Your task to perform on an android device: check google app version Image 0: 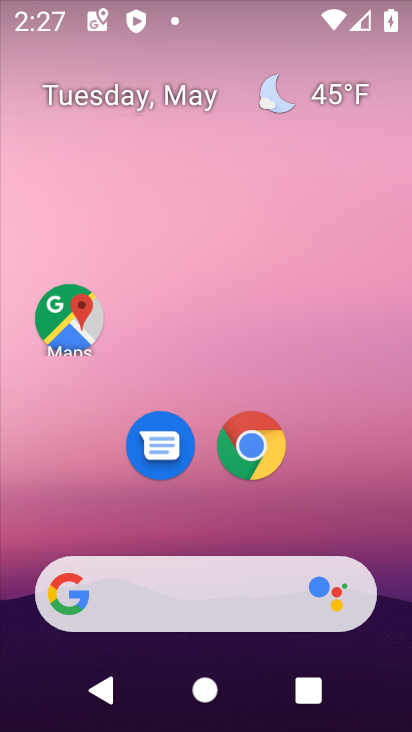
Step 0: drag from (226, 511) to (271, 68)
Your task to perform on an android device: check google app version Image 1: 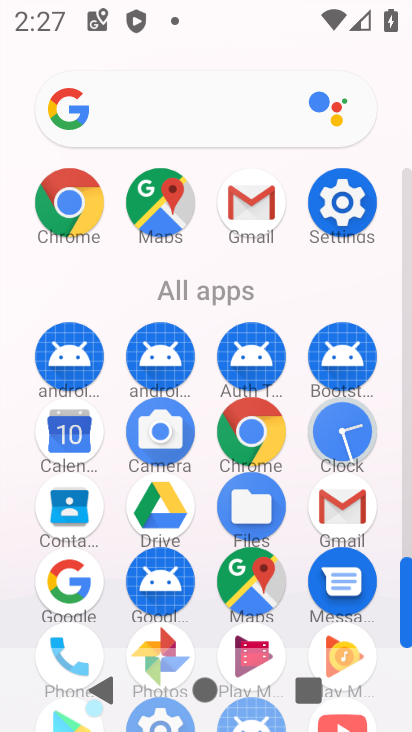
Step 1: click (340, 264)
Your task to perform on an android device: check google app version Image 2: 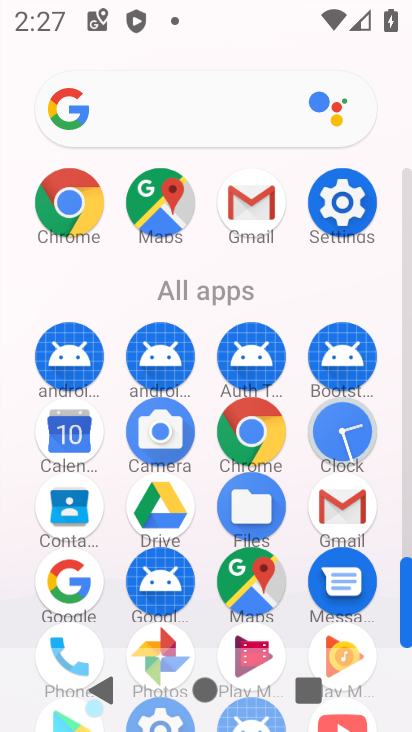
Step 2: click (352, 174)
Your task to perform on an android device: check google app version Image 3: 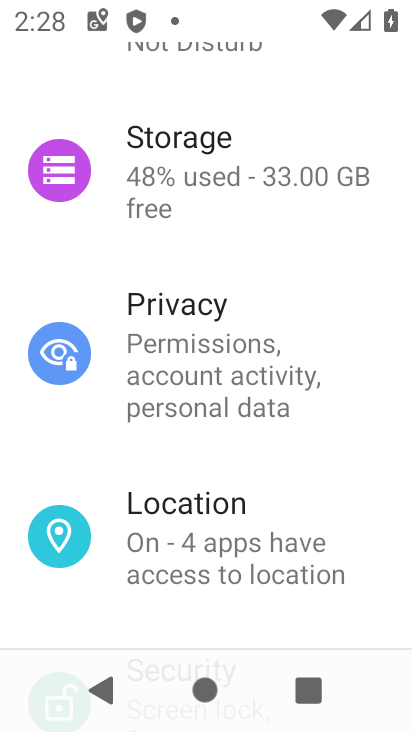
Step 3: drag from (146, 551) to (187, 73)
Your task to perform on an android device: check google app version Image 4: 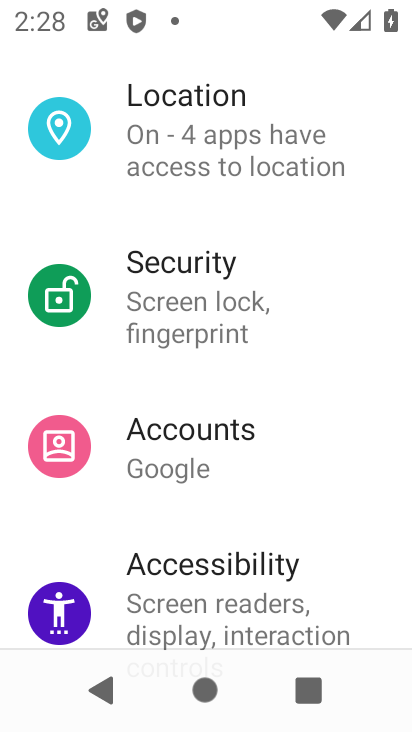
Step 4: drag from (175, 559) to (205, 165)
Your task to perform on an android device: check google app version Image 5: 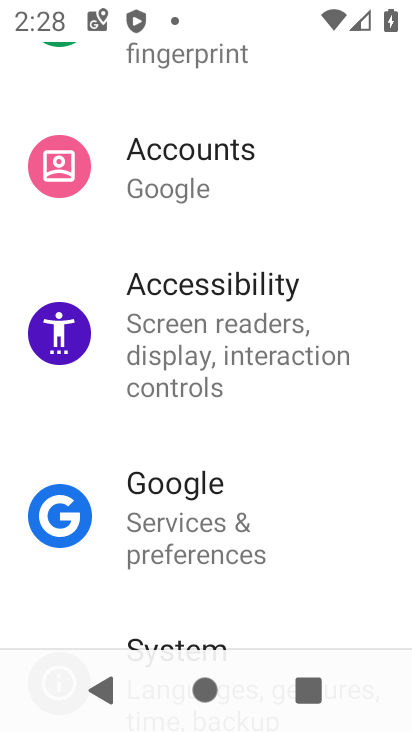
Step 5: drag from (208, 498) to (165, 154)
Your task to perform on an android device: check google app version Image 6: 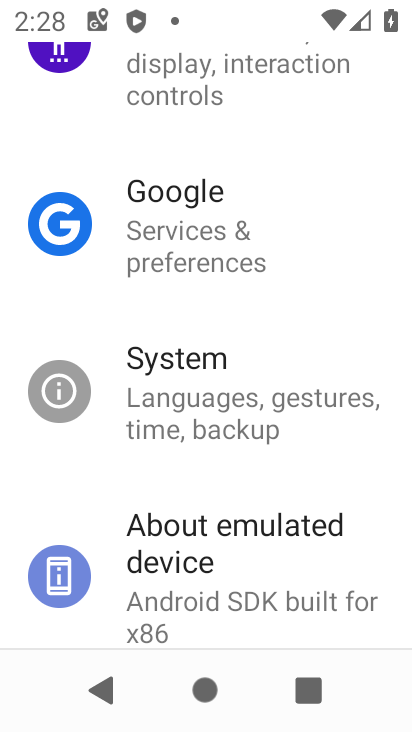
Step 6: click (113, 585)
Your task to perform on an android device: check google app version Image 7: 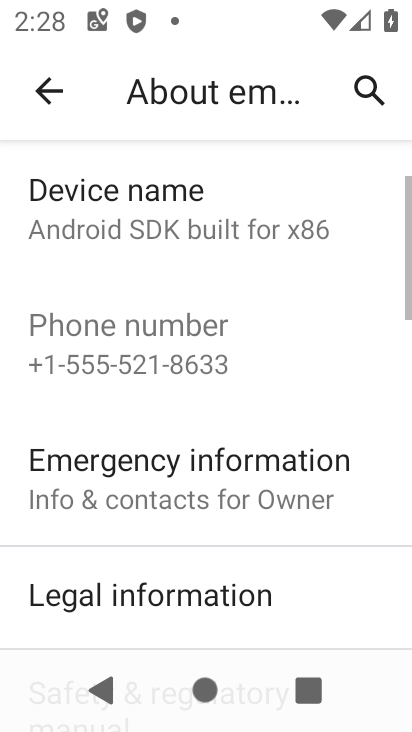
Step 7: drag from (205, 455) to (217, 160)
Your task to perform on an android device: check google app version Image 8: 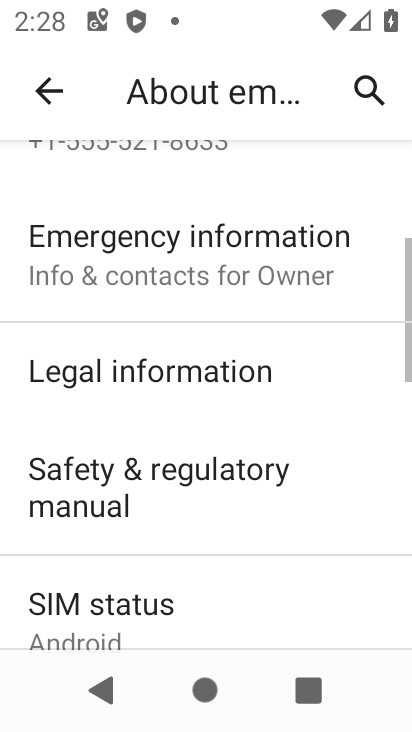
Step 8: drag from (216, 546) to (225, 207)
Your task to perform on an android device: check google app version Image 9: 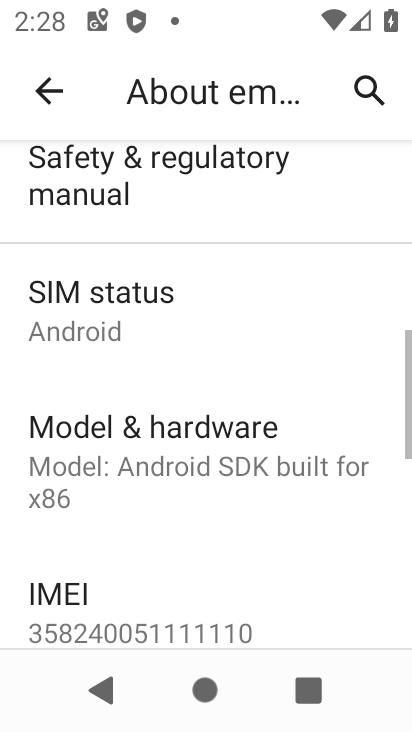
Step 9: drag from (58, 566) to (164, 5)
Your task to perform on an android device: check google app version Image 10: 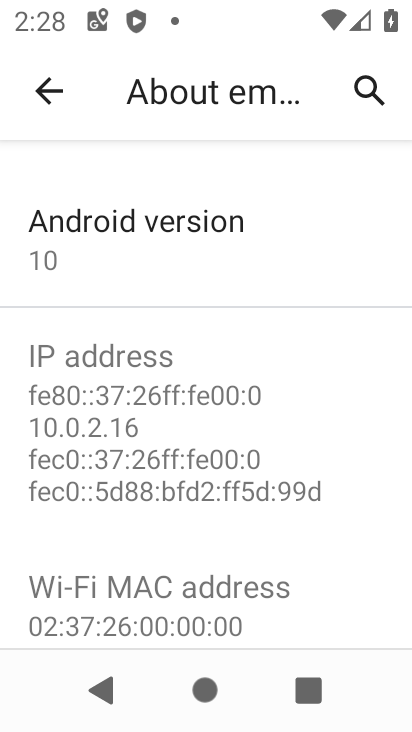
Step 10: drag from (113, 551) to (137, 57)
Your task to perform on an android device: check google app version Image 11: 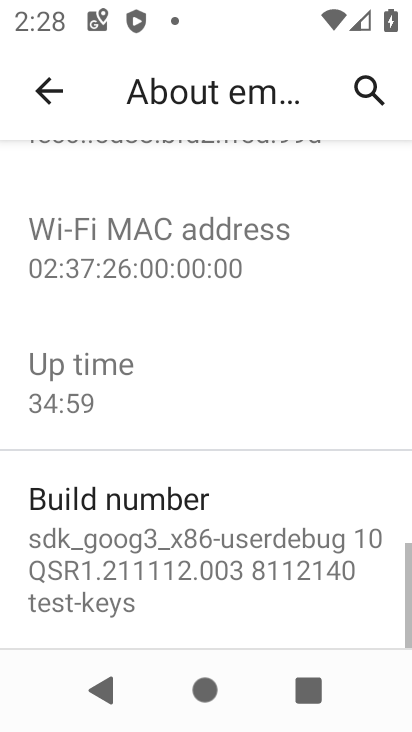
Step 11: drag from (141, 158) to (202, 494)
Your task to perform on an android device: check google app version Image 12: 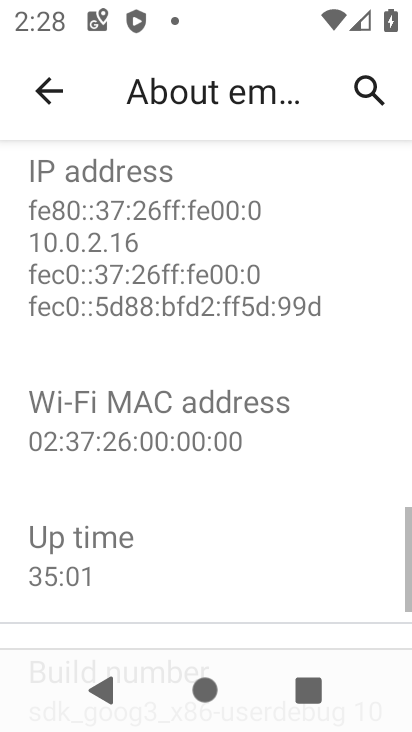
Step 12: drag from (150, 299) to (186, 592)
Your task to perform on an android device: check google app version Image 13: 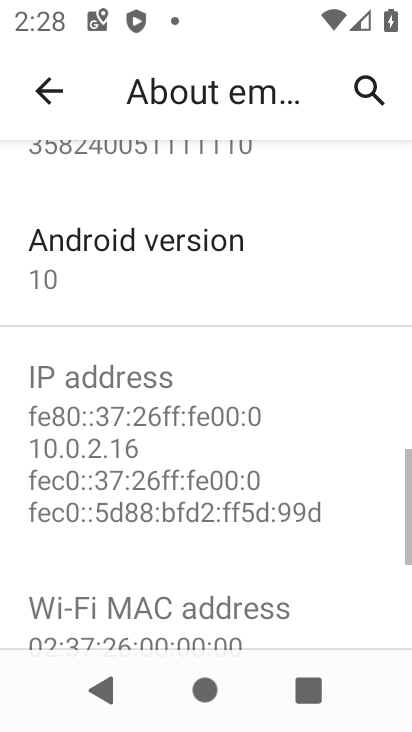
Step 13: click (97, 299)
Your task to perform on an android device: check google app version Image 14: 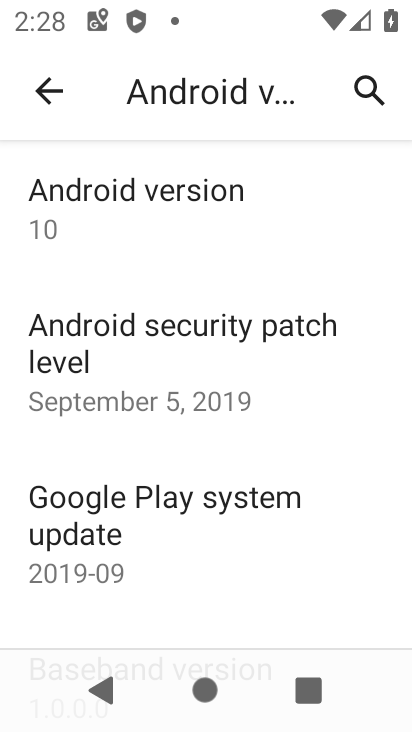
Step 14: task complete